Your task to perform on an android device: delete browsing data in the chrome app Image 0: 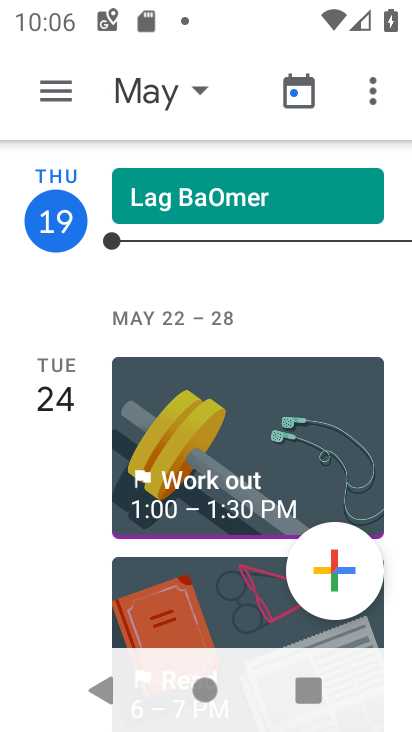
Step 0: press home button
Your task to perform on an android device: delete browsing data in the chrome app Image 1: 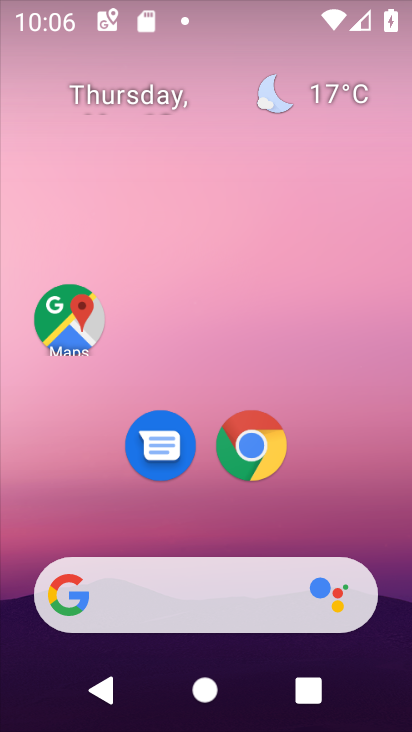
Step 1: drag from (222, 504) to (293, 218)
Your task to perform on an android device: delete browsing data in the chrome app Image 2: 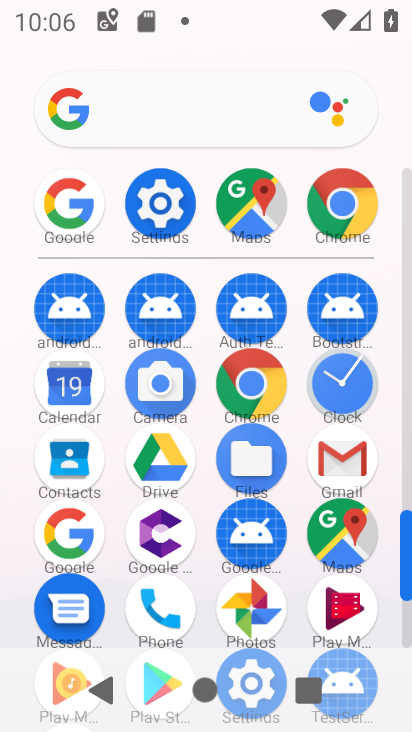
Step 2: click (268, 376)
Your task to perform on an android device: delete browsing data in the chrome app Image 3: 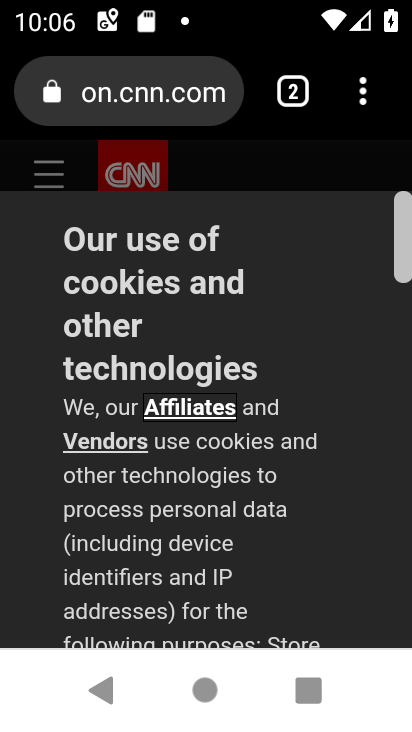
Step 3: click (229, 383)
Your task to perform on an android device: delete browsing data in the chrome app Image 4: 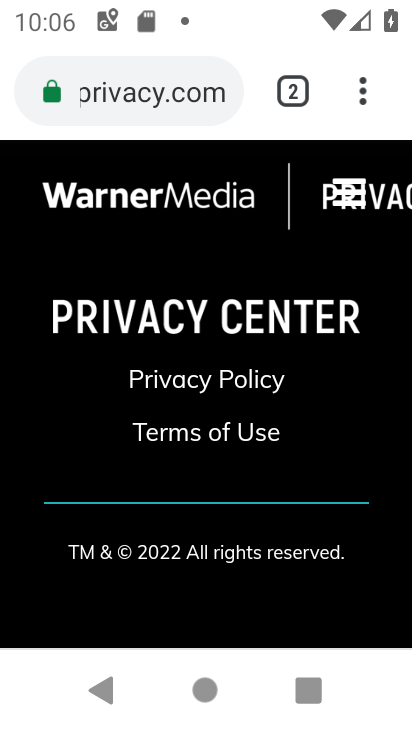
Step 4: click (370, 110)
Your task to perform on an android device: delete browsing data in the chrome app Image 5: 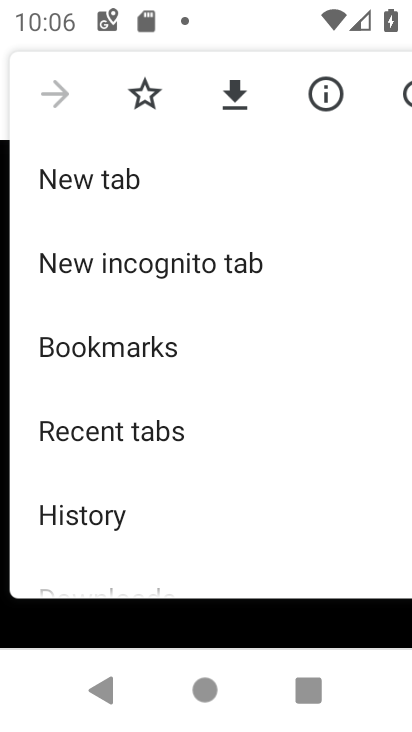
Step 5: click (159, 519)
Your task to perform on an android device: delete browsing data in the chrome app Image 6: 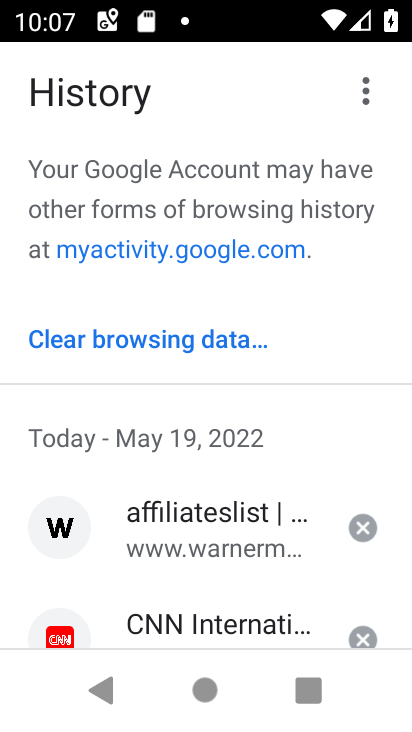
Step 6: click (218, 360)
Your task to perform on an android device: delete browsing data in the chrome app Image 7: 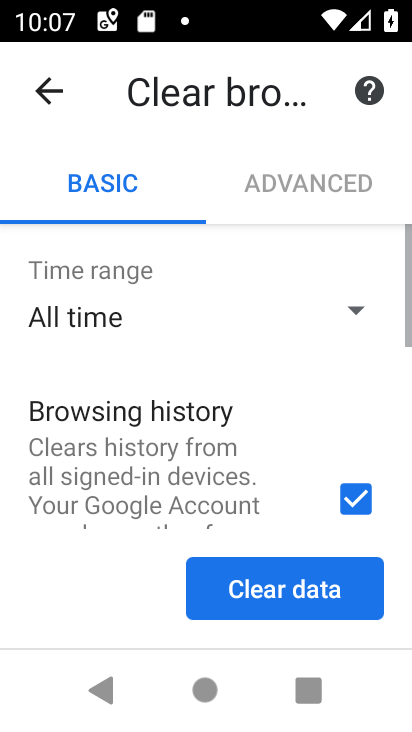
Step 7: click (247, 596)
Your task to perform on an android device: delete browsing data in the chrome app Image 8: 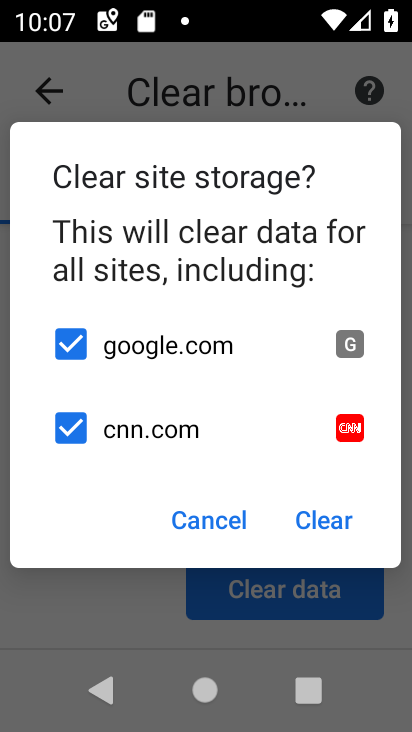
Step 8: click (326, 517)
Your task to perform on an android device: delete browsing data in the chrome app Image 9: 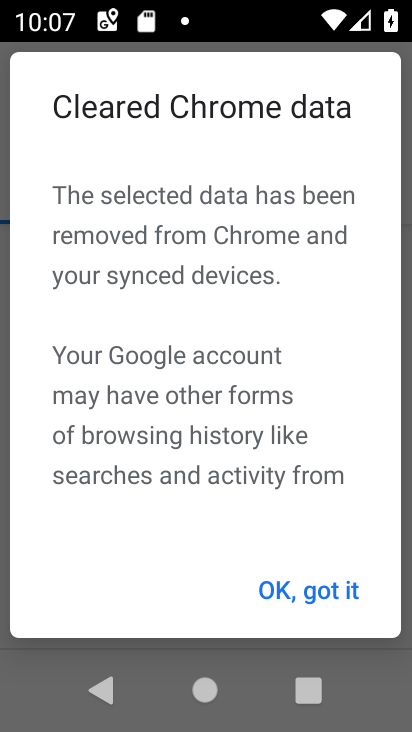
Step 9: click (329, 601)
Your task to perform on an android device: delete browsing data in the chrome app Image 10: 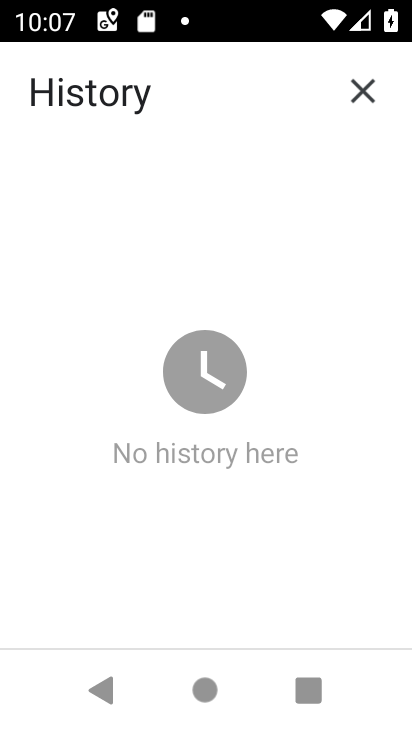
Step 10: task complete